Your task to perform on an android device: change the clock display to analog Image 0: 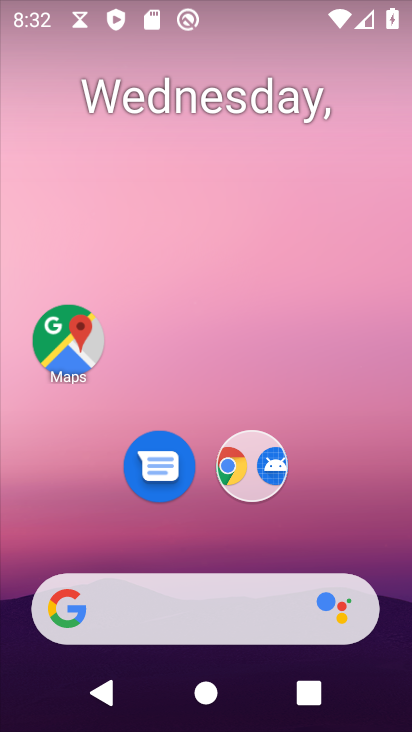
Step 0: drag from (336, 476) to (378, 41)
Your task to perform on an android device: change the clock display to analog Image 1: 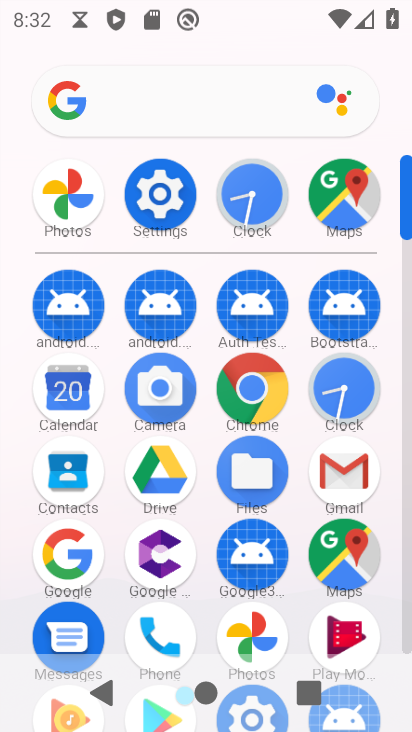
Step 1: click (253, 186)
Your task to perform on an android device: change the clock display to analog Image 2: 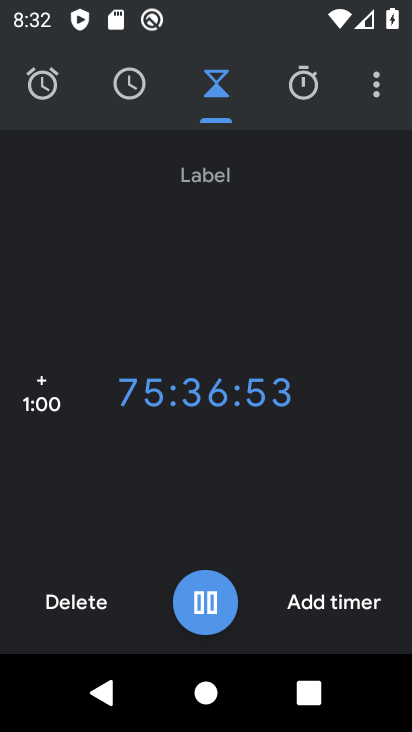
Step 2: click (366, 82)
Your task to perform on an android device: change the clock display to analog Image 3: 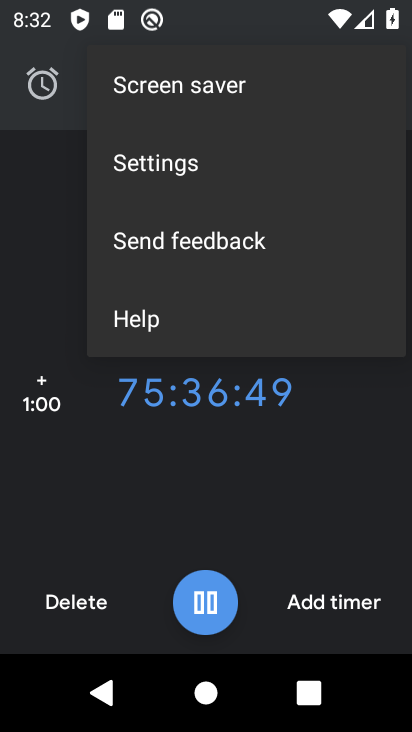
Step 3: click (288, 162)
Your task to perform on an android device: change the clock display to analog Image 4: 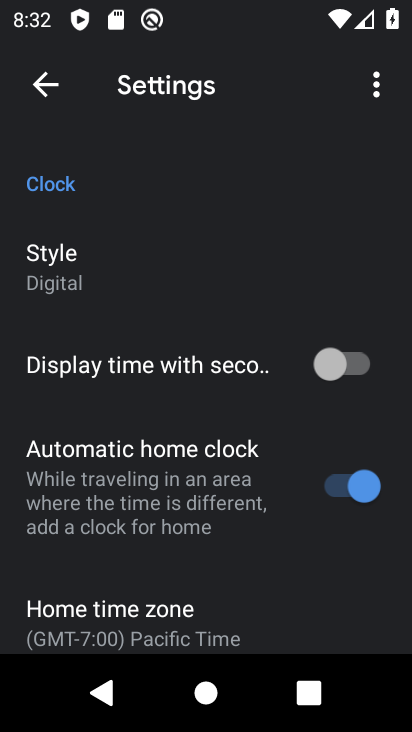
Step 4: click (66, 266)
Your task to perform on an android device: change the clock display to analog Image 5: 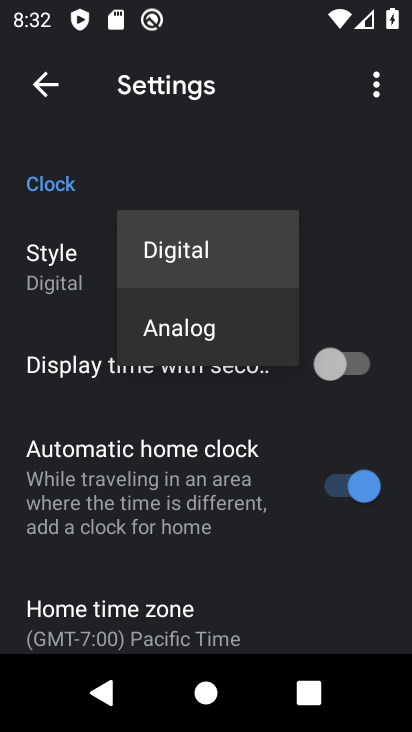
Step 5: click (180, 319)
Your task to perform on an android device: change the clock display to analog Image 6: 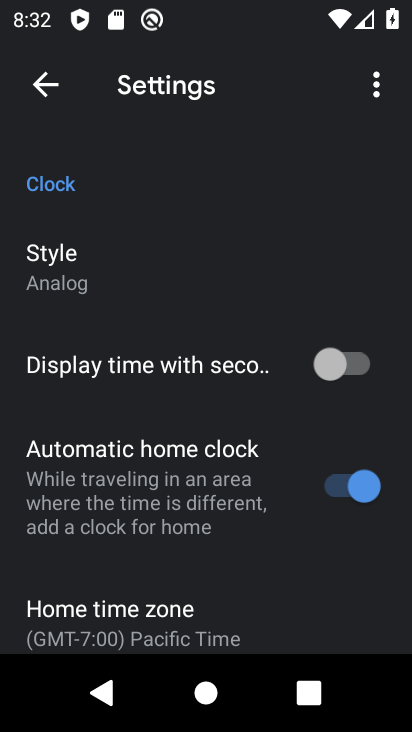
Step 6: task complete